Your task to perform on an android device: Go to display settings Image 0: 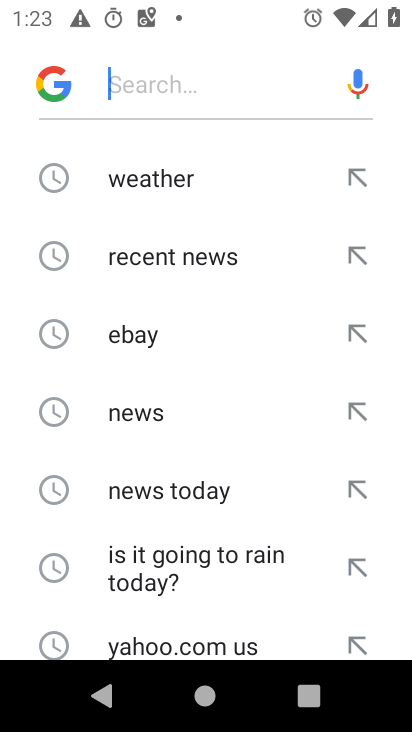
Step 0: press back button
Your task to perform on an android device: Go to display settings Image 1: 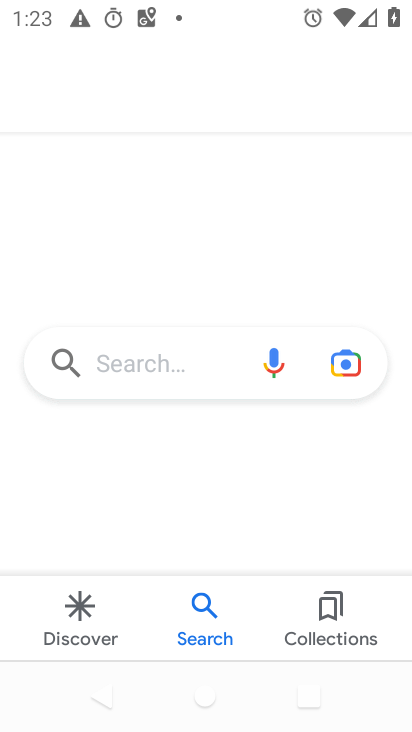
Step 1: press back button
Your task to perform on an android device: Go to display settings Image 2: 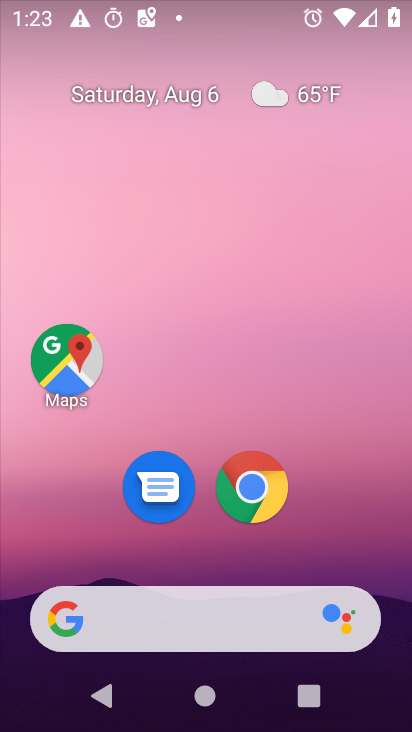
Step 2: drag from (193, 514) to (241, 16)
Your task to perform on an android device: Go to display settings Image 3: 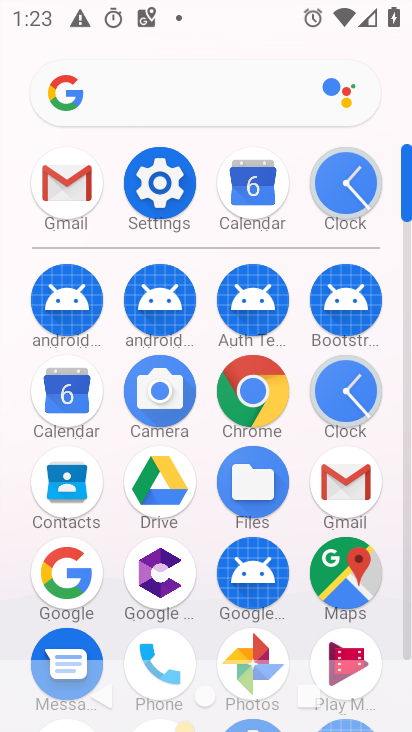
Step 3: click (158, 185)
Your task to perform on an android device: Go to display settings Image 4: 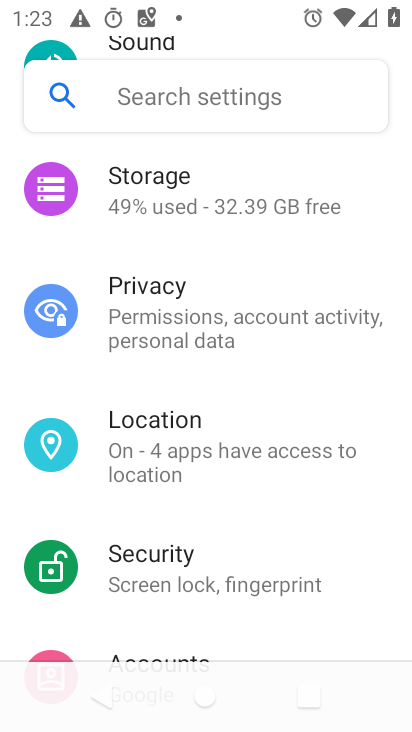
Step 4: drag from (199, 199) to (205, 653)
Your task to perform on an android device: Go to display settings Image 5: 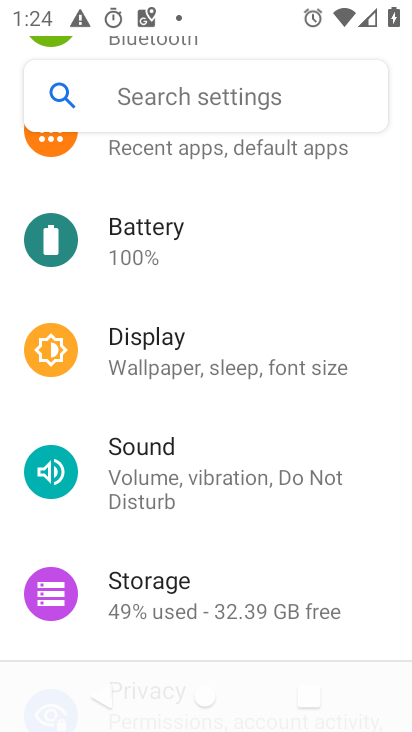
Step 5: click (188, 359)
Your task to perform on an android device: Go to display settings Image 6: 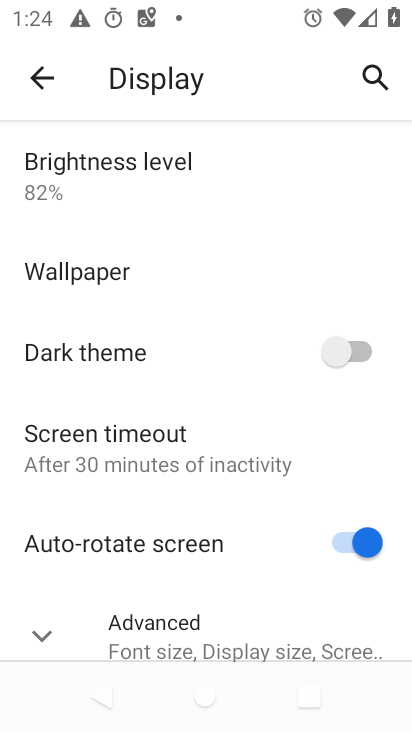
Step 6: task complete